Your task to perform on an android device: turn off notifications settings in the gmail app Image 0: 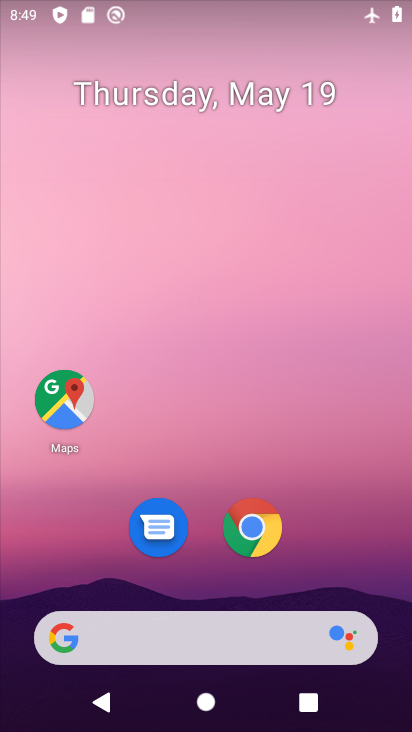
Step 0: drag from (182, 597) to (199, 228)
Your task to perform on an android device: turn off notifications settings in the gmail app Image 1: 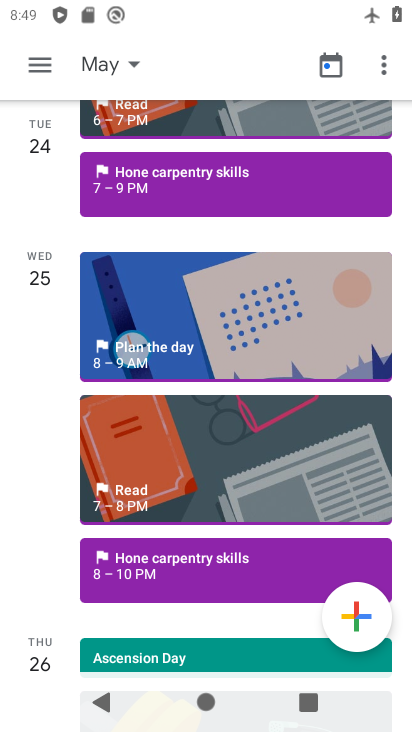
Step 1: drag from (187, 662) to (252, 43)
Your task to perform on an android device: turn off notifications settings in the gmail app Image 2: 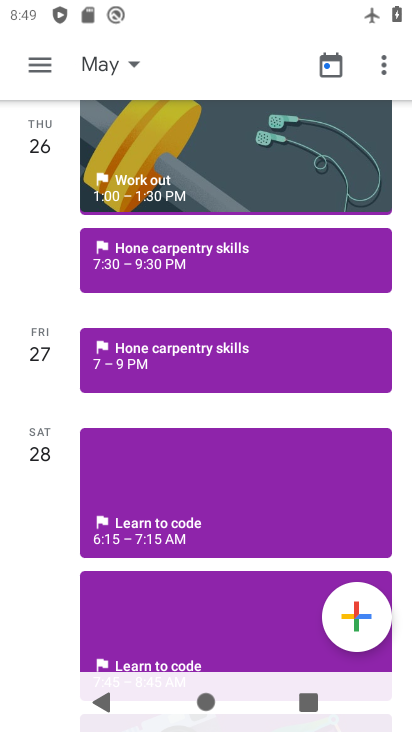
Step 2: drag from (221, 638) to (261, 271)
Your task to perform on an android device: turn off notifications settings in the gmail app Image 3: 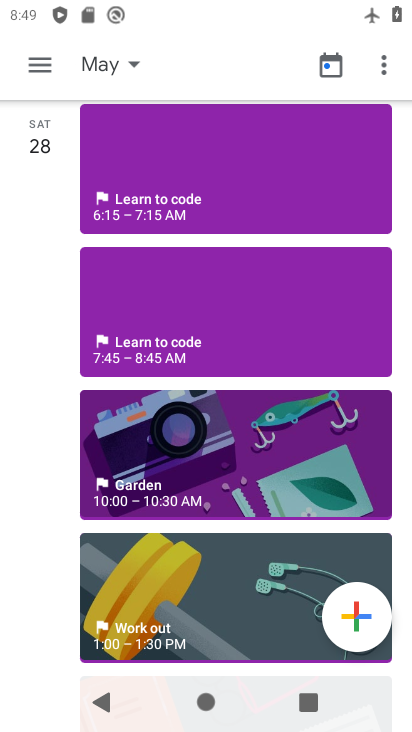
Step 3: drag from (266, 240) to (272, 722)
Your task to perform on an android device: turn off notifications settings in the gmail app Image 4: 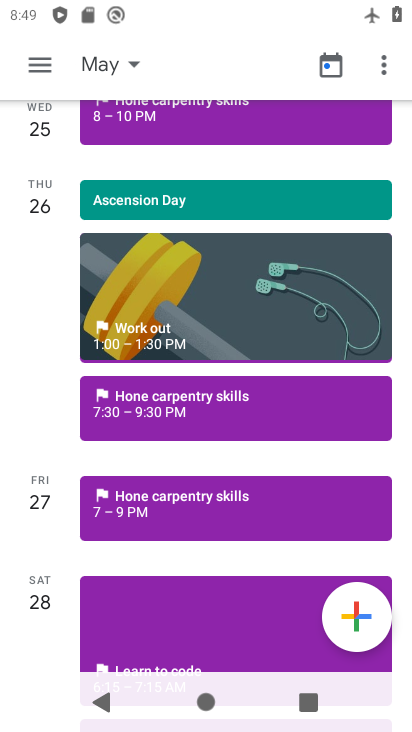
Step 4: click (105, 69)
Your task to perform on an android device: turn off notifications settings in the gmail app Image 5: 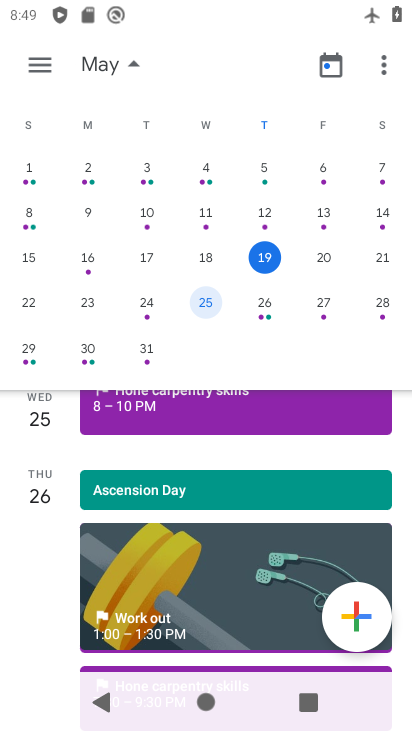
Step 5: click (28, 67)
Your task to perform on an android device: turn off notifications settings in the gmail app Image 6: 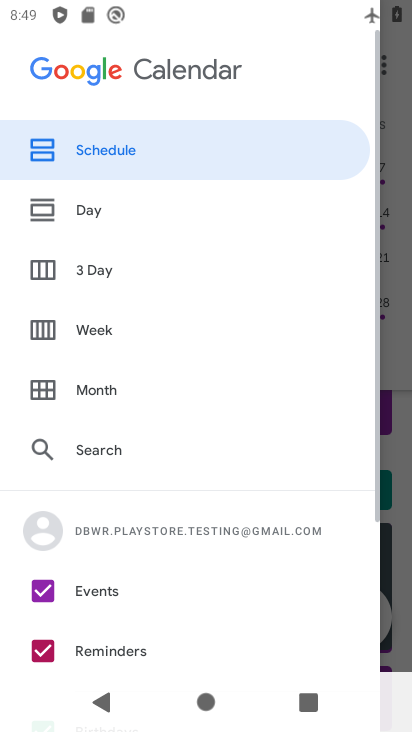
Step 6: drag from (180, 576) to (221, 119)
Your task to perform on an android device: turn off notifications settings in the gmail app Image 7: 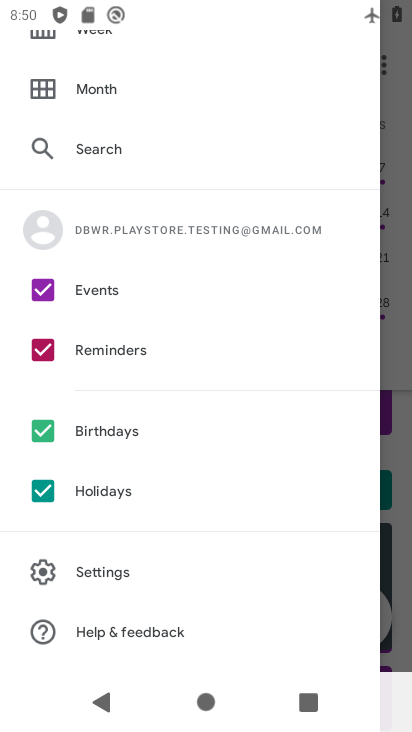
Step 7: press home button
Your task to perform on an android device: turn off notifications settings in the gmail app Image 8: 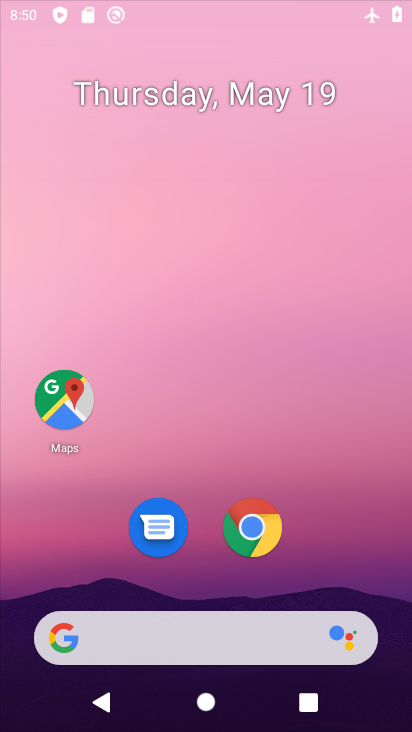
Step 8: drag from (204, 555) to (301, 131)
Your task to perform on an android device: turn off notifications settings in the gmail app Image 9: 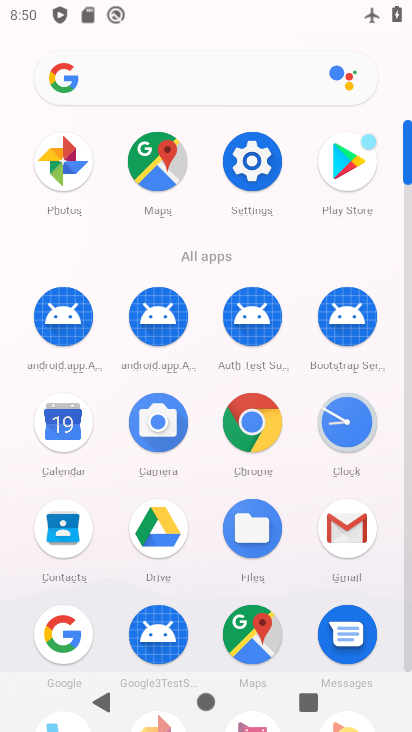
Step 9: click (333, 528)
Your task to perform on an android device: turn off notifications settings in the gmail app Image 10: 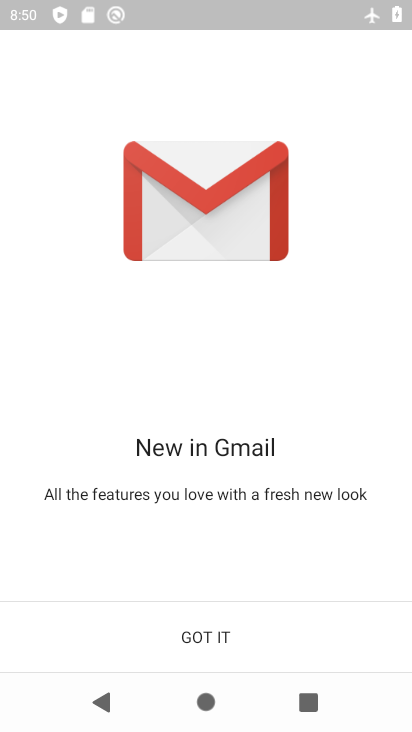
Step 10: click (194, 642)
Your task to perform on an android device: turn off notifications settings in the gmail app Image 11: 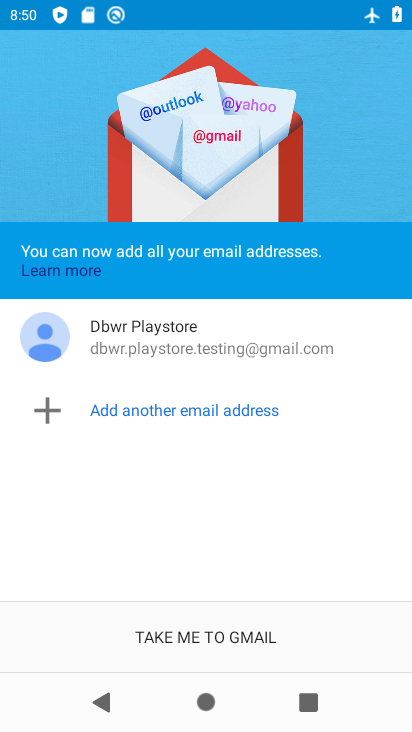
Step 11: drag from (181, 564) to (218, 357)
Your task to perform on an android device: turn off notifications settings in the gmail app Image 12: 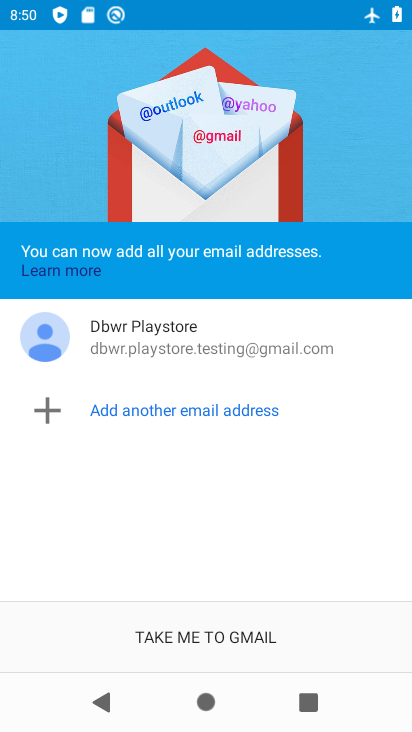
Step 12: click (196, 636)
Your task to perform on an android device: turn off notifications settings in the gmail app Image 13: 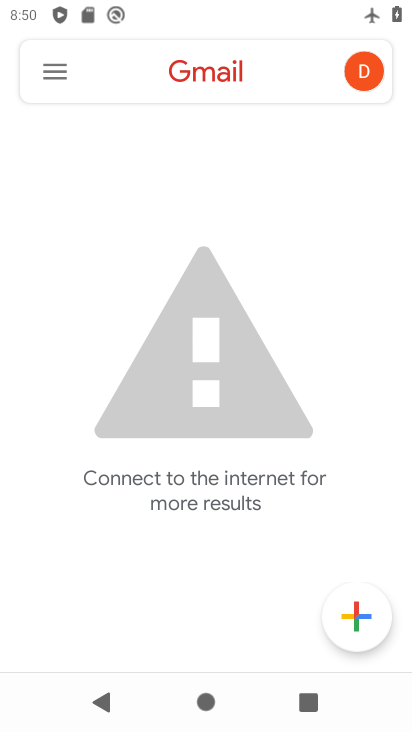
Step 13: click (49, 48)
Your task to perform on an android device: turn off notifications settings in the gmail app Image 14: 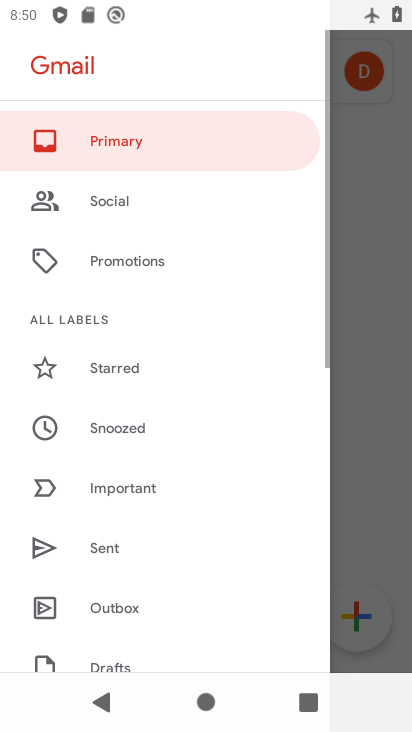
Step 14: drag from (126, 519) to (234, 64)
Your task to perform on an android device: turn off notifications settings in the gmail app Image 15: 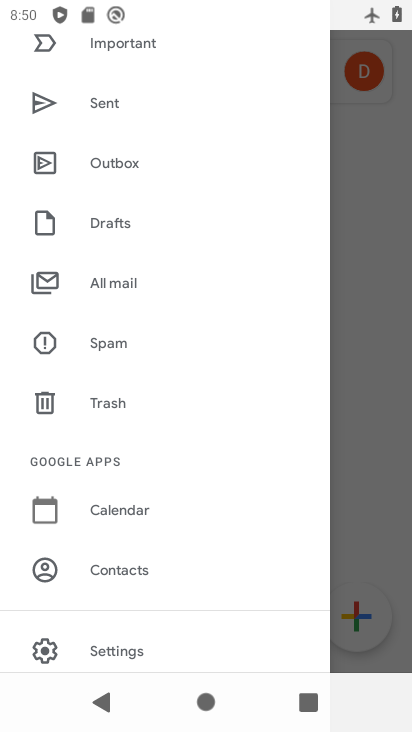
Step 15: click (117, 650)
Your task to perform on an android device: turn off notifications settings in the gmail app Image 16: 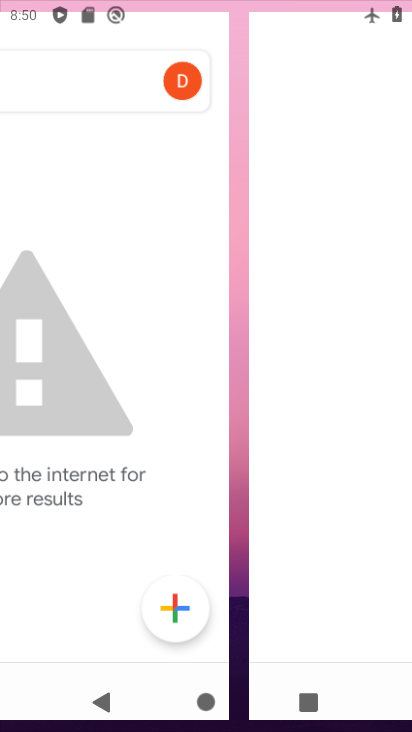
Step 16: drag from (218, 211) to (244, 157)
Your task to perform on an android device: turn off notifications settings in the gmail app Image 17: 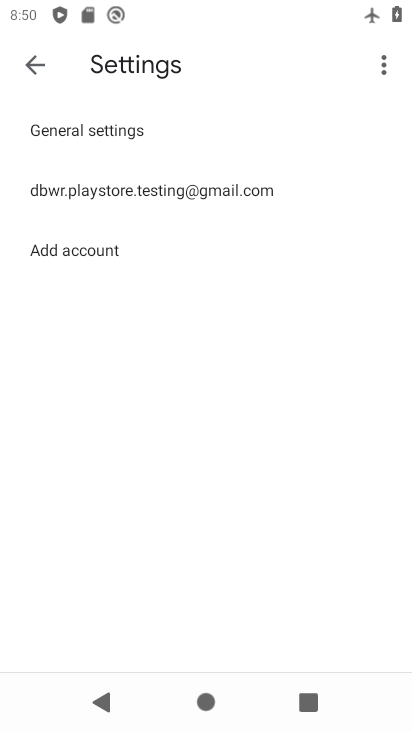
Step 17: click (167, 184)
Your task to perform on an android device: turn off notifications settings in the gmail app Image 18: 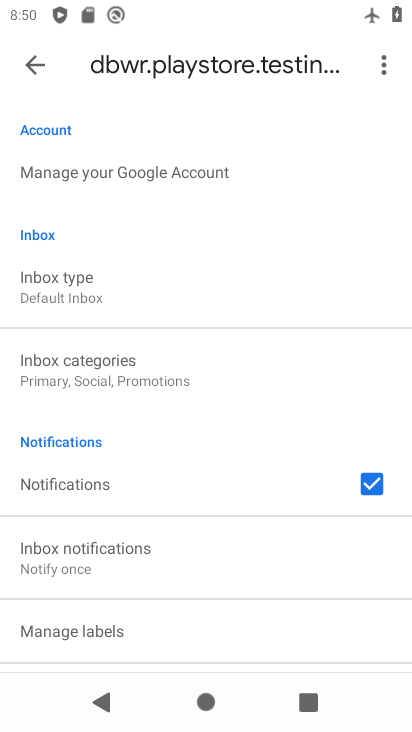
Step 18: drag from (165, 612) to (214, 271)
Your task to perform on an android device: turn off notifications settings in the gmail app Image 19: 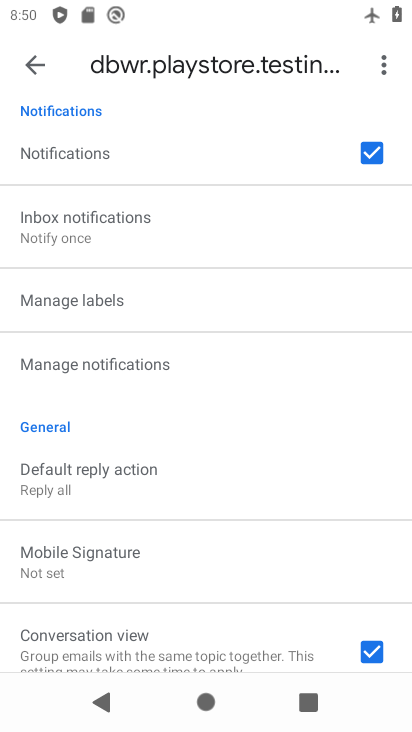
Step 19: drag from (205, 616) to (267, 360)
Your task to perform on an android device: turn off notifications settings in the gmail app Image 20: 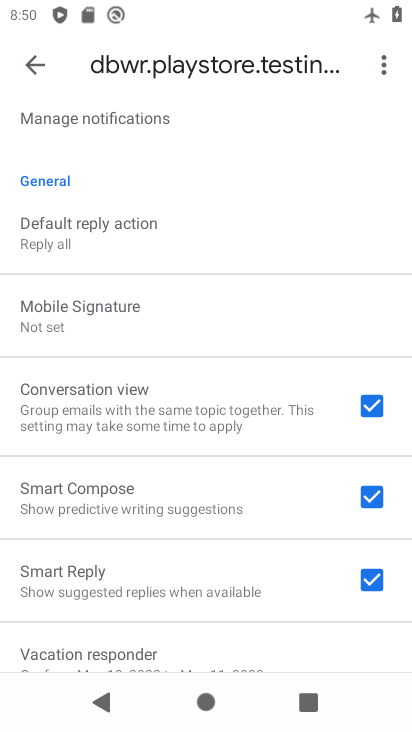
Step 20: click (91, 116)
Your task to perform on an android device: turn off notifications settings in the gmail app Image 21: 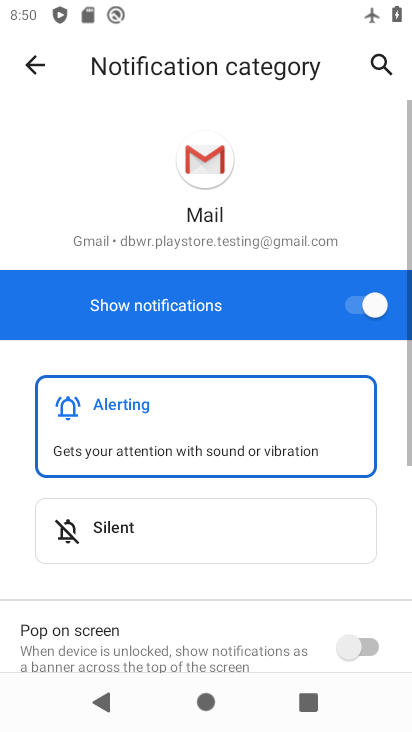
Step 21: click (344, 287)
Your task to perform on an android device: turn off notifications settings in the gmail app Image 22: 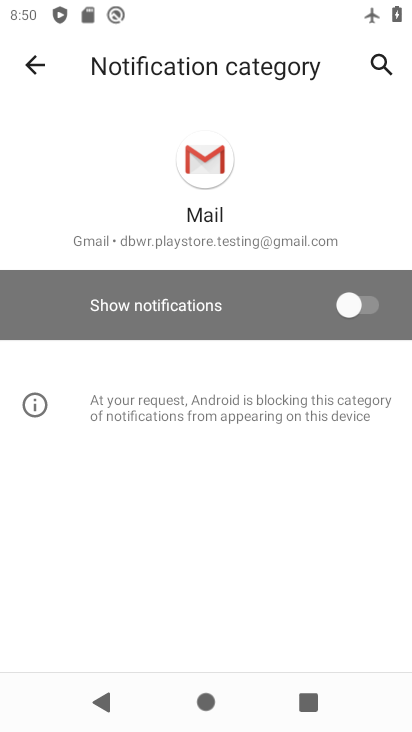
Step 22: task complete